Your task to perform on an android device: change keyboard looks Image 0: 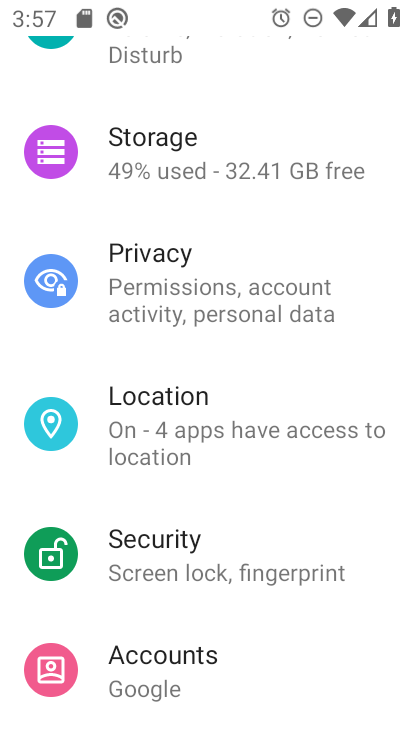
Step 0: drag from (230, 656) to (309, 250)
Your task to perform on an android device: change keyboard looks Image 1: 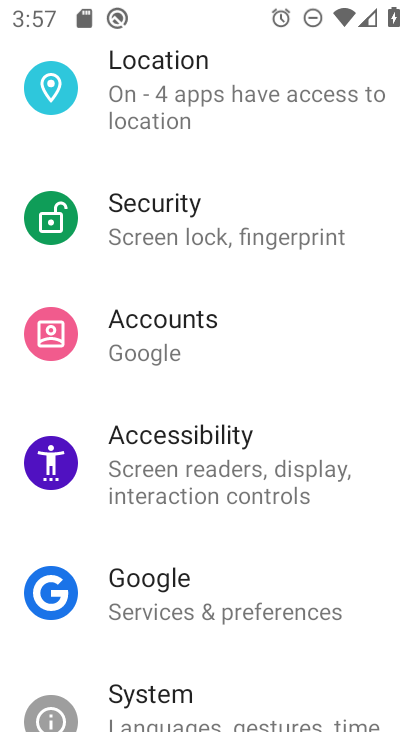
Step 1: drag from (237, 551) to (292, 260)
Your task to perform on an android device: change keyboard looks Image 2: 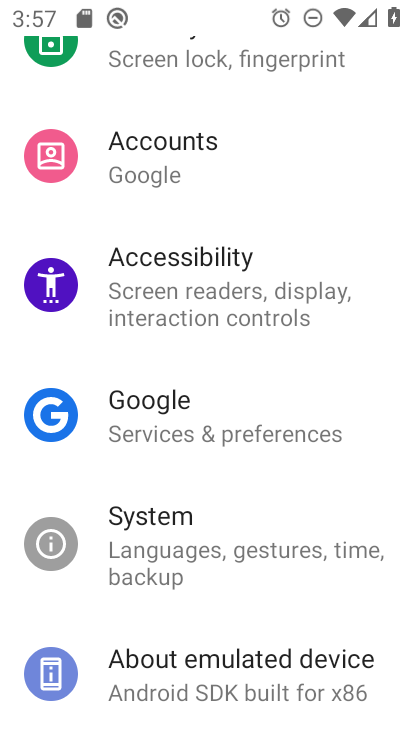
Step 2: click (180, 548)
Your task to perform on an android device: change keyboard looks Image 3: 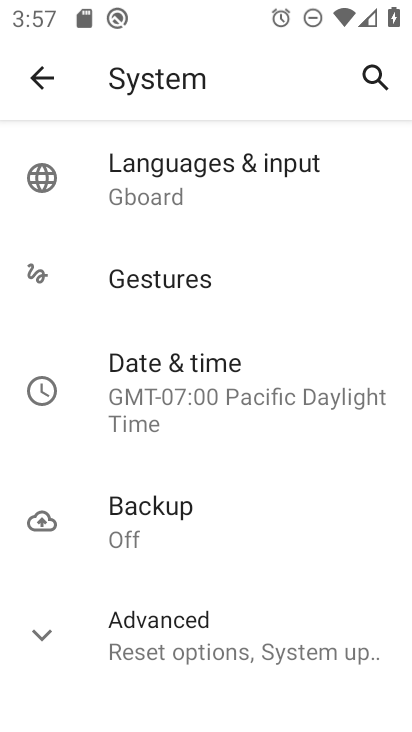
Step 3: click (245, 186)
Your task to perform on an android device: change keyboard looks Image 4: 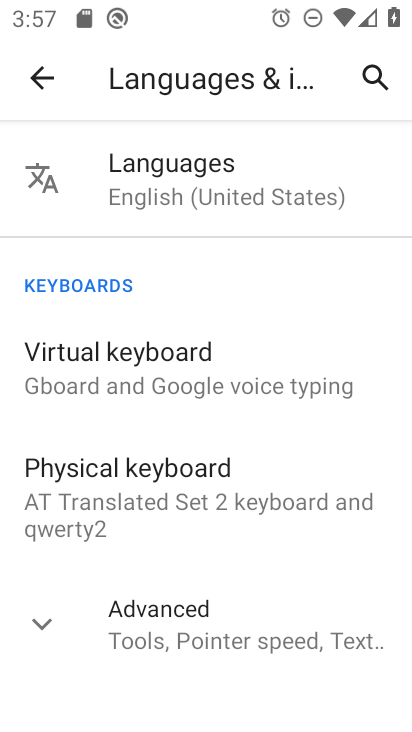
Step 4: drag from (200, 600) to (231, 282)
Your task to perform on an android device: change keyboard looks Image 5: 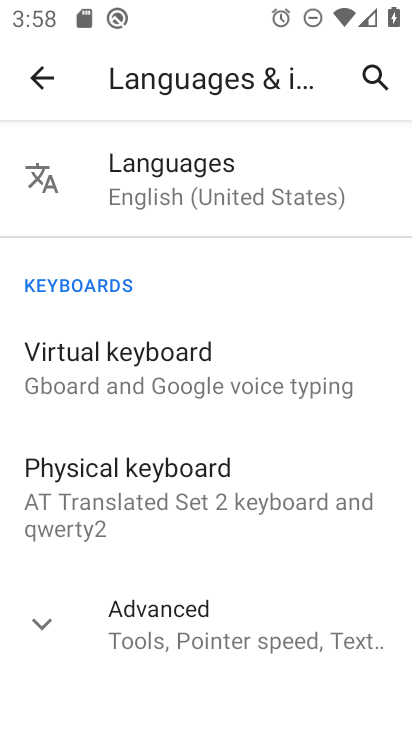
Step 5: click (135, 359)
Your task to perform on an android device: change keyboard looks Image 6: 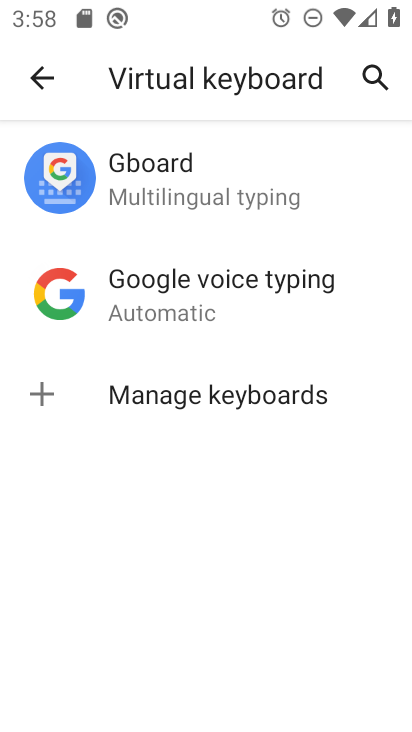
Step 6: click (229, 178)
Your task to perform on an android device: change keyboard looks Image 7: 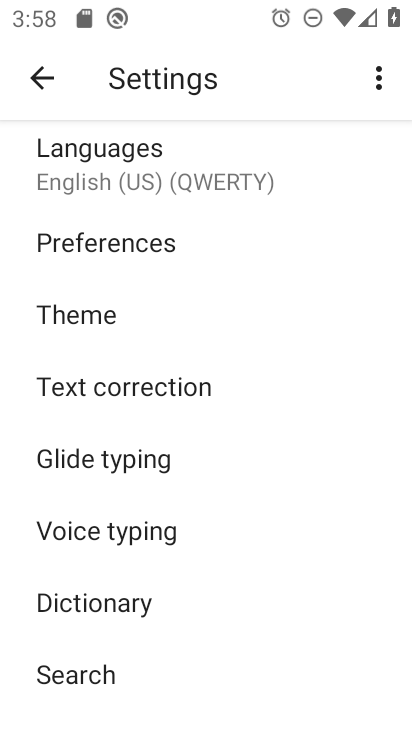
Step 7: click (133, 317)
Your task to perform on an android device: change keyboard looks Image 8: 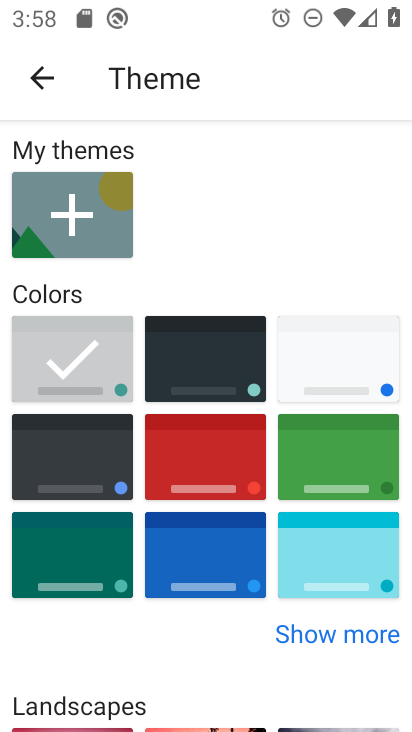
Step 8: click (205, 387)
Your task to perform on an android device: change keyboard looks Image 9: 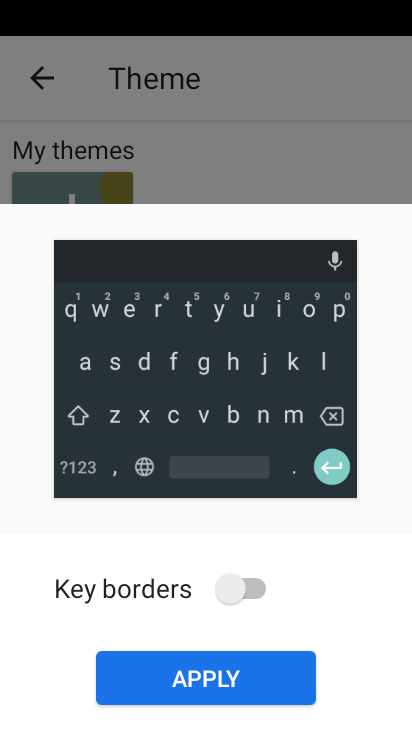
Step 9: click (210, 683)
Your task to perform on an android device: change keyboard looks Image 10: 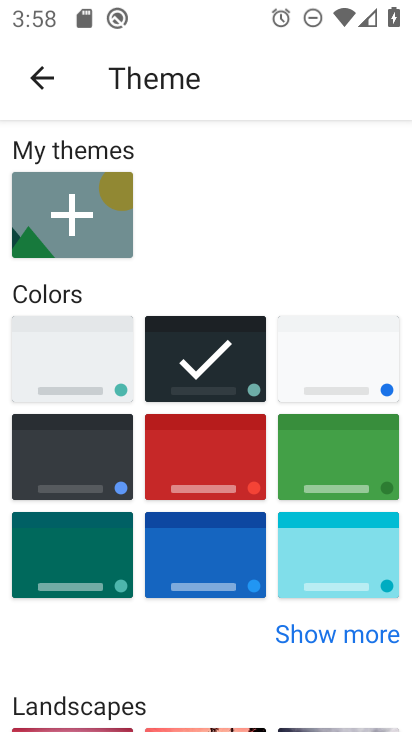
Step 10: task complete